Your task to perform on an android device: Is it going to rain tomorrow? Image 0: 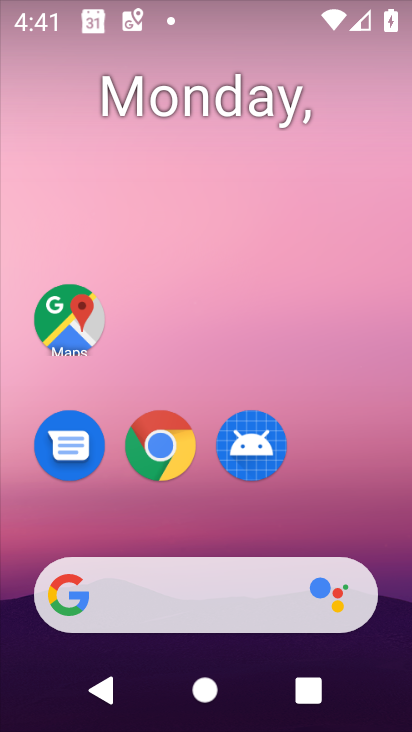
Step 0: click (166, 423)
Your task to perform on an android device: Is it going to rain tomorrow? Image 1: 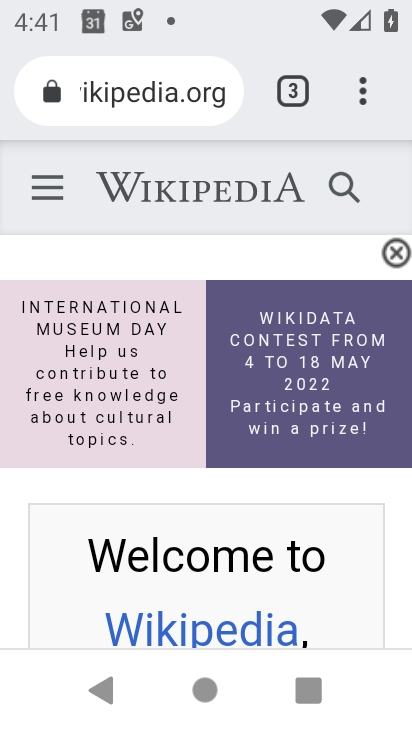
Step 1: click (157, 90)
Your task to perform on an android device: Is it going to rain tomorrow? Image 2: 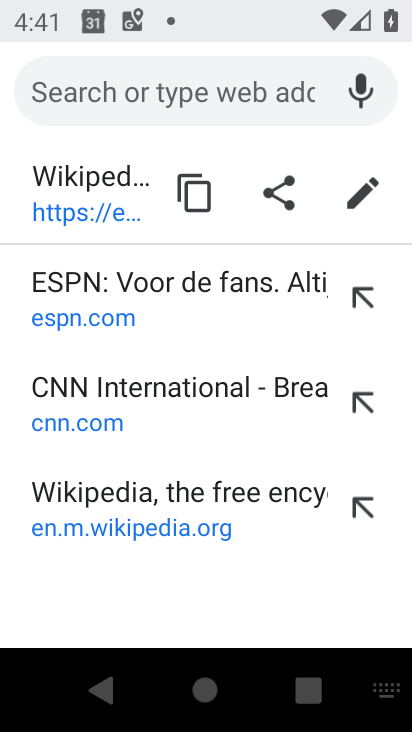
Step 2: type "Is it going to rain tomorrow?"
Your task to perform on an android device: Is it going to rain tomorrow? Image 3: 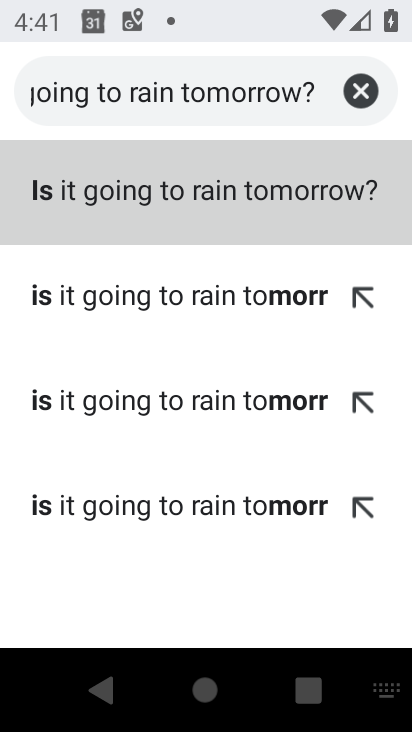
Step 3: click (175, 184)
Your task to perform on an android device: Is it going to rain tomorrow? Image 4: 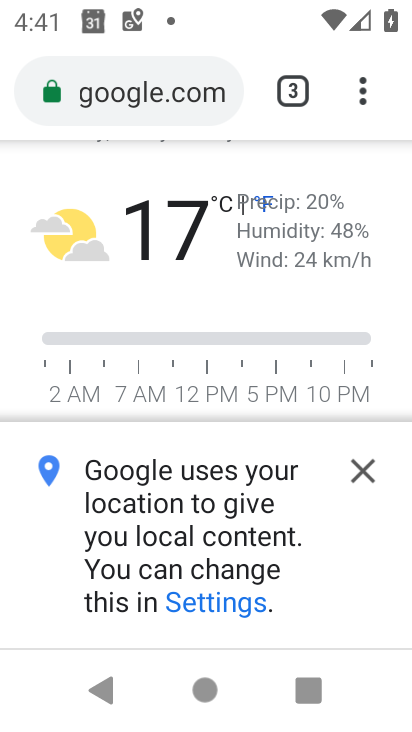
Step 4: click (372, 460)
Your task to perform on an android device: Is it going to rain tomorrow? Image 5: 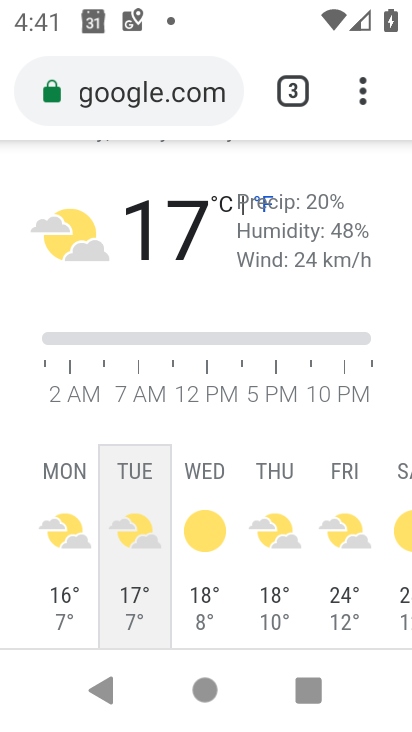
Step 5: task complete